Your task to perform on an android device: Open the calendar app, open the side menu, and click the "Day" option Image 0: 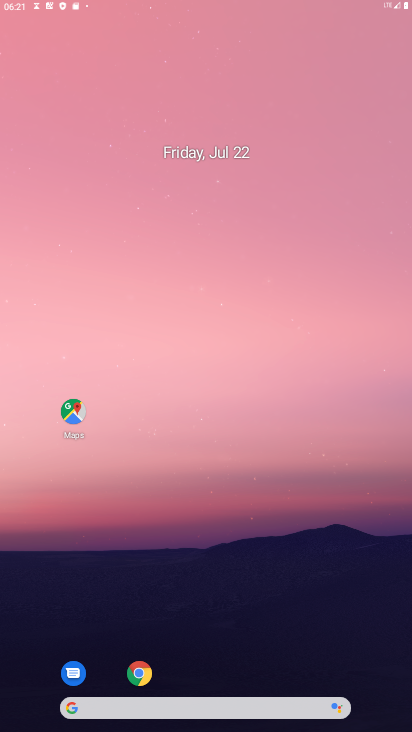
Step 0: press home button
Your task to perform on an android device: Open the calendar app, open the side menu, and click the "Day" option Image 1: 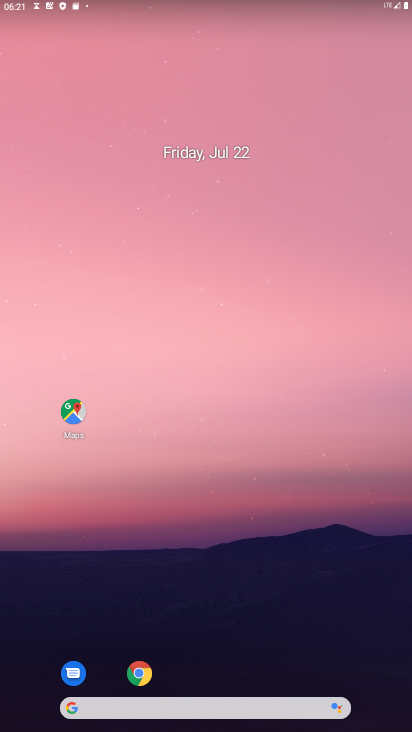
Step 1: drag from (256, 657) to (409, 135)
Your task to perform on an android device: Open the calendar app, open the side menu, and click the "Day" option Image 2: 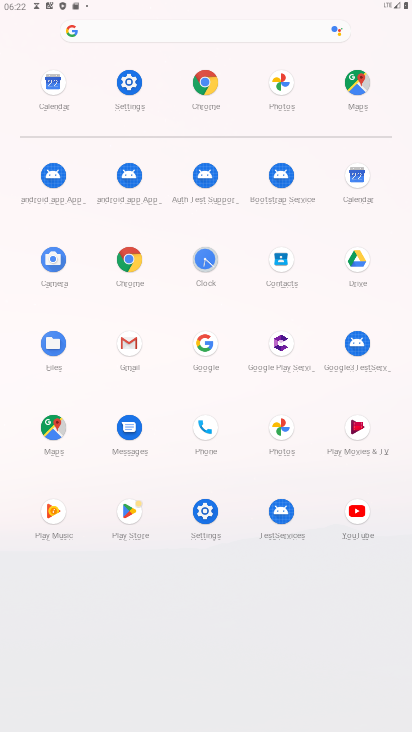
Step 2: click (353, 177)
Your task to perform on an android device: Open the calendar app, open the side menu, and click the "Day" option Image 3: 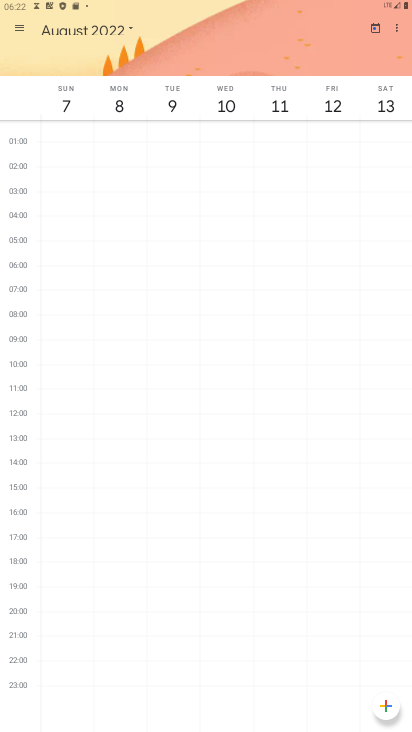
Step 3: click (23, 21)
Your task to perform on an android device: Open the calendar app, open the side menu, and click the "Day" option Image 4: 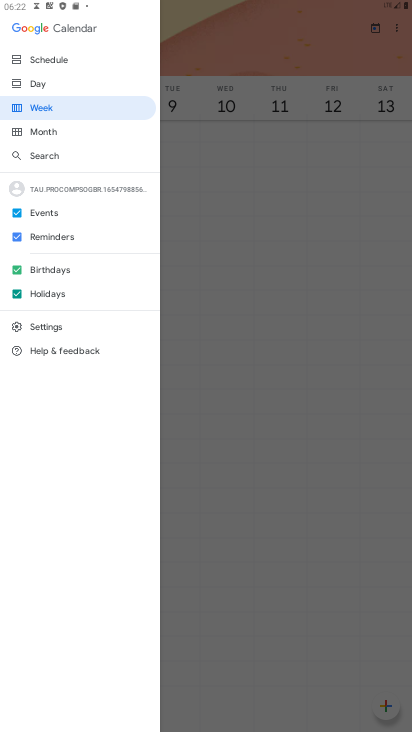
Step 4: click (35, 84)
Your task to perform on an android device: Open the calendar app, open the side menu, and click the "Day" option Image 5: 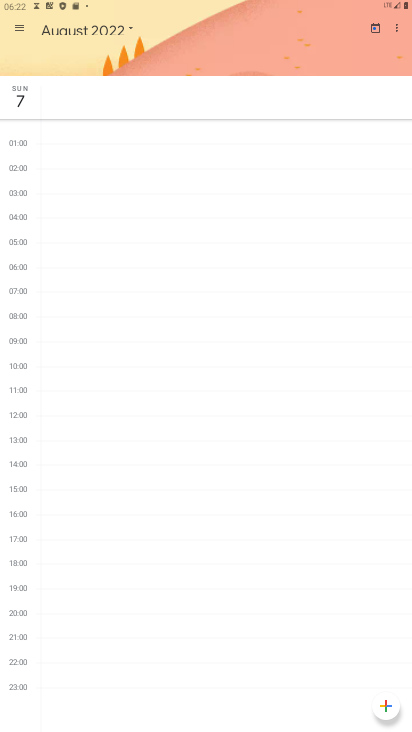
Step 5: task complete